Your task to perform on an android device: turn on airplane mode Image 0: 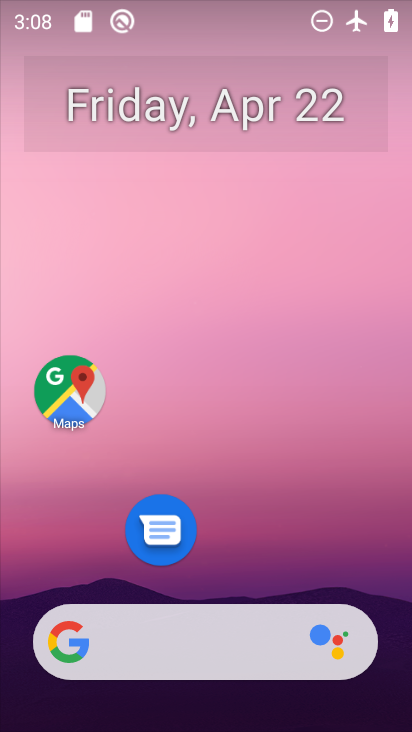
Step 0: drag from (251, 492) to (256, 3)
Your task to perform on an android device: turn on airplane mode Image 1: 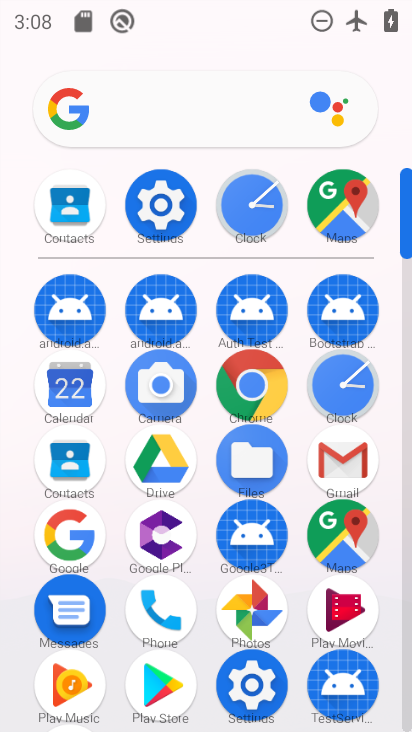
Step 1: click (156, 213)
Your task to perform on an android device: turn on airplane mode Image 2: 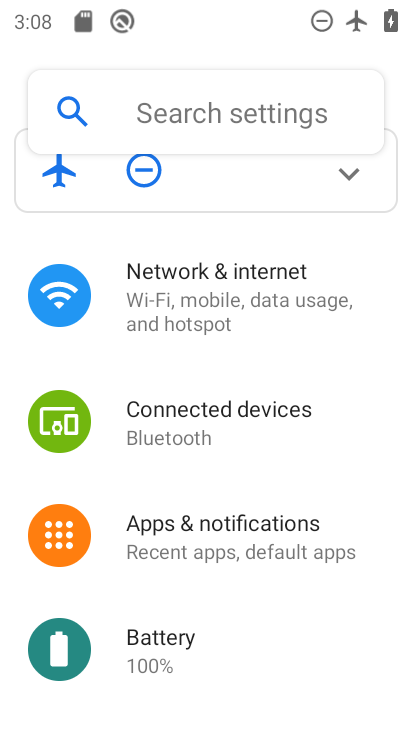
Step 2: click (179, 292)
Your task to perform on an android device: turn on airplane mode Image 3: 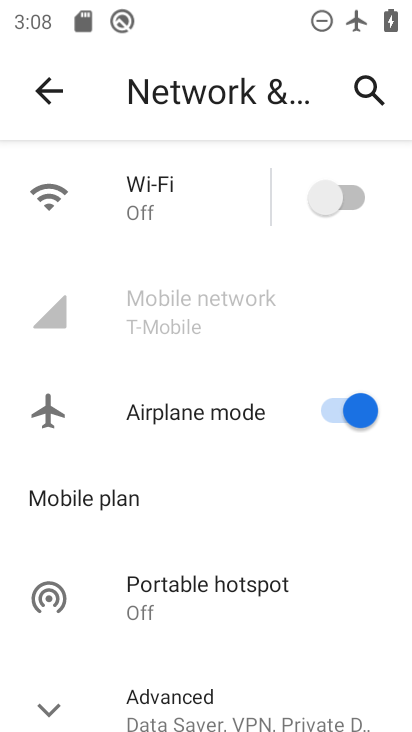
Step 3: task complete